Your task to perform on an android device: install app "DoorDash - Food Delivery" Image 0: 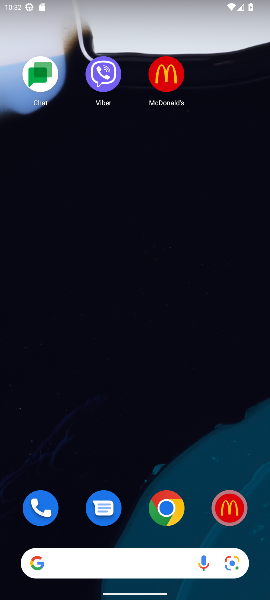
Step 0: press home button
Your task to perform on an android device: install app "DoorDash - Food Delivery" Image 1: 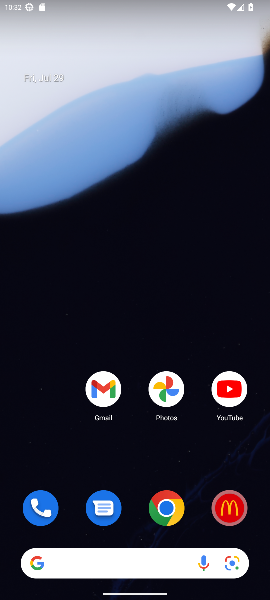
Step 1: drag from (135, 554) to (189, 47)
Your task to perform on an android device: install app "DoorDash - Food Delivery" Image 2: 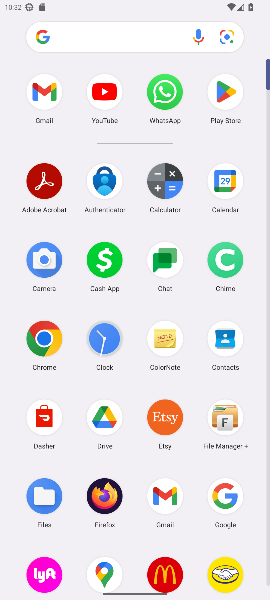
Step 2: click (230, 84)
Your task to perform on an android device: install app "DoorDash - Food Delivery" Image 3: 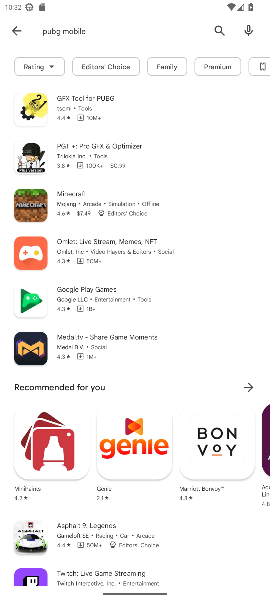
Step 3: click (218, 26)
Your task to perform on an android device: install app "DoorDash - Food Delivery" Image 4: 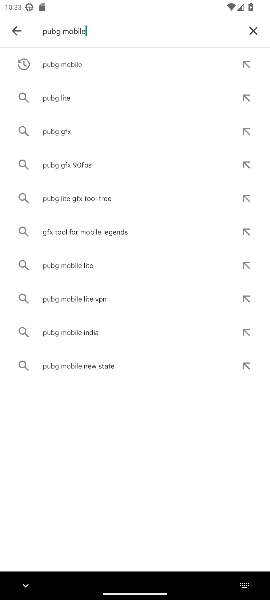
Step 4: click (254, 30)
Your task to perform on an android device: install app "DoorDash - Food Delivery" Image 5: 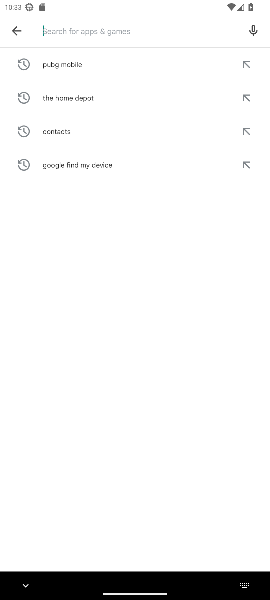
Step 5: type "doordash- food delivery"
Your task to perform on an android device: install app "DoorDash - Food Delivery" Image 6: 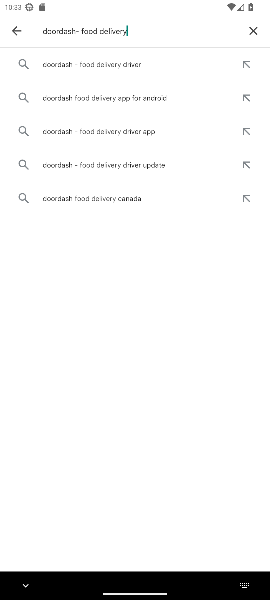
Step 6: click (114, 63)
Your task to perform on an android device: install app "DoorDash - Food Delivery" Image 7: 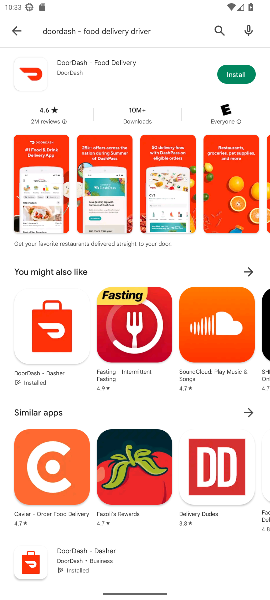
Step 7: click (241, 74)
Your task to perform on an android device: install app "DoorDash - Food Delivery" Image 8: 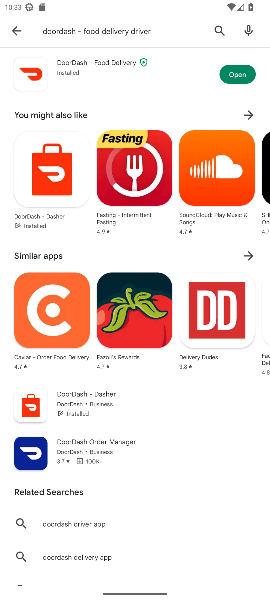
Step 8: task complete